Your task to perform on an android device: Open the map Image 0: 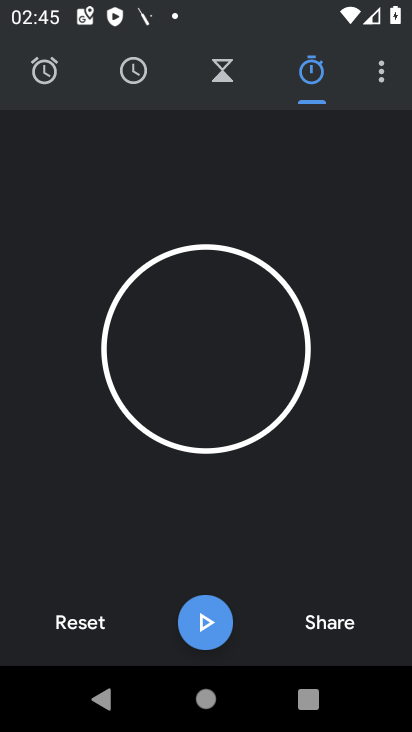
Step 0: press home button
Your task to perform on an android device: Open the map Image 1: 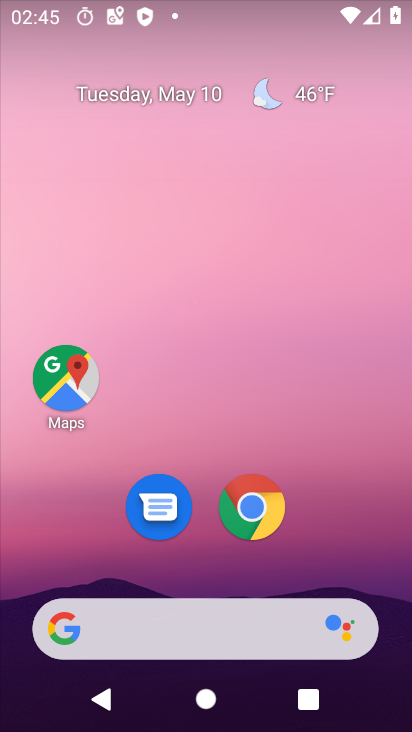
Step 1: drag from (270, 665) to (253, 235)
Your task to perform on an android device: Open the map Image 2: 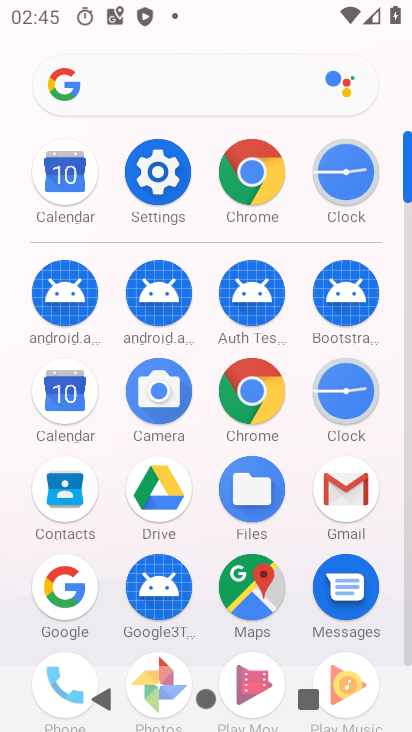
Step 2: click (252, 581)
Your task to perform on an android device: Open the map Image 3: 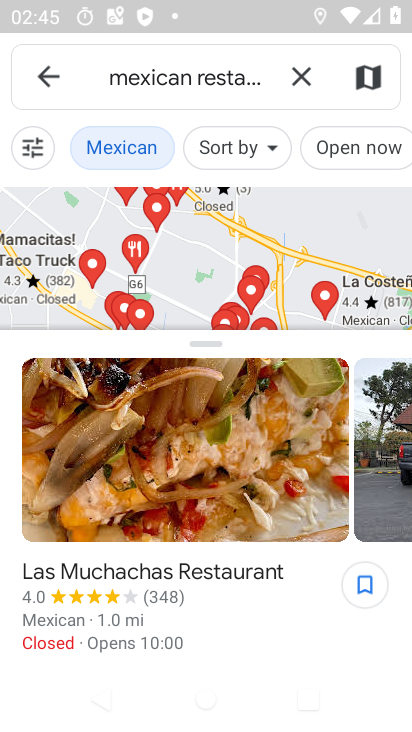
Step 3: click (205, 279)
Your task to perform on an android device: Open the map Image 4: 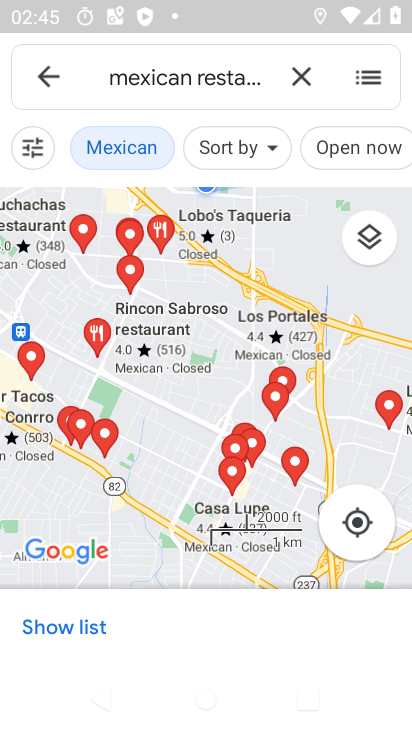
Step 4: click (48, 74)
Your task to perform on an android device: Open the map Image 5: 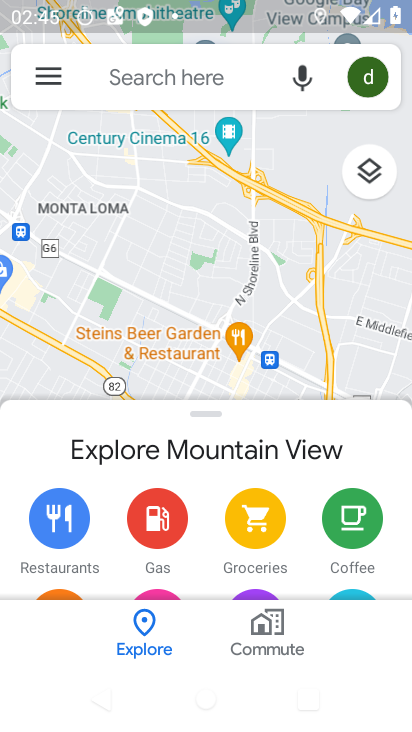
Step 5: click (166, 317)
Your task to perform on an android device: Open the map Image 6: 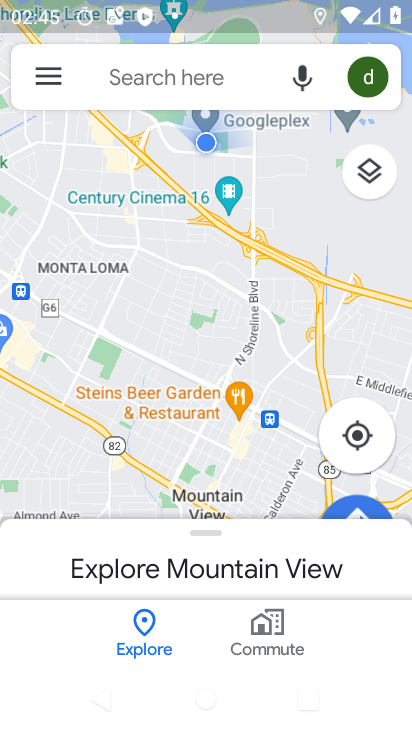
Step 6: click (353, 437)
Your task to perform on an android device: Open the map Image 7: 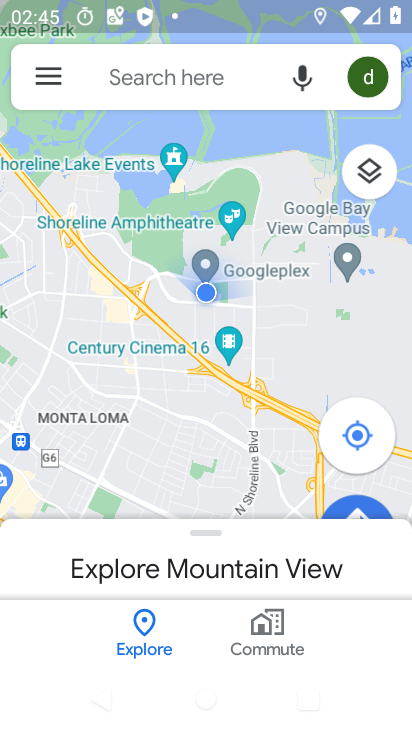
Step 7: task complete